Your task to perform on an android device: change the upload size in google photos Image 0: 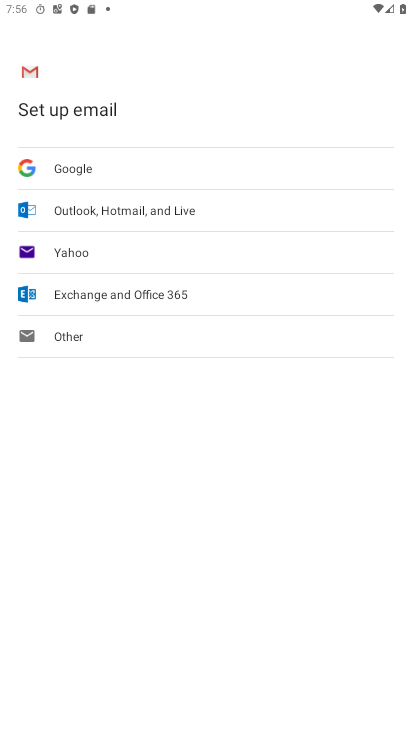
Step 0: press home button
Your task to perform on an android device: change the upload size in google photos Image 1: 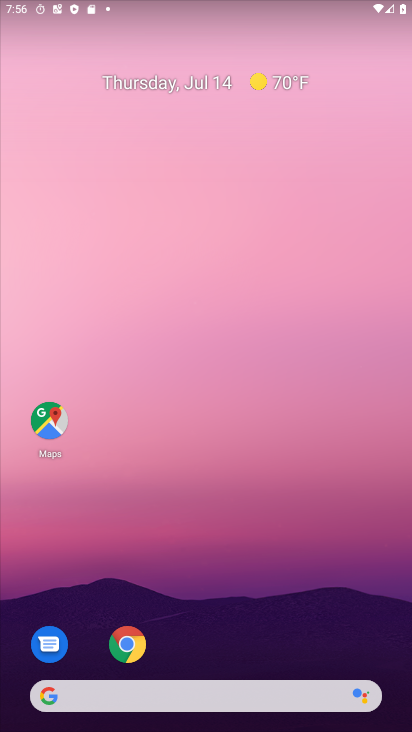
Step 1: drag from (226, 662) to (390, 56)
Your task to perform on an android device: change the upload size in google photos Image 2: 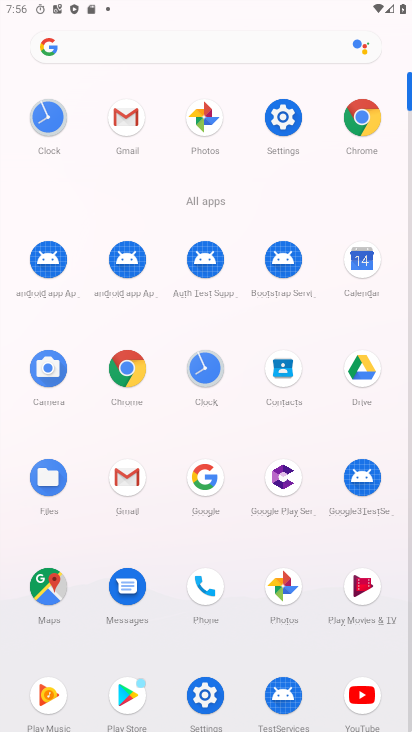
Step 2: click (293, 588)
Your task to perform on an android device: change the upload size in google photos Image 3: 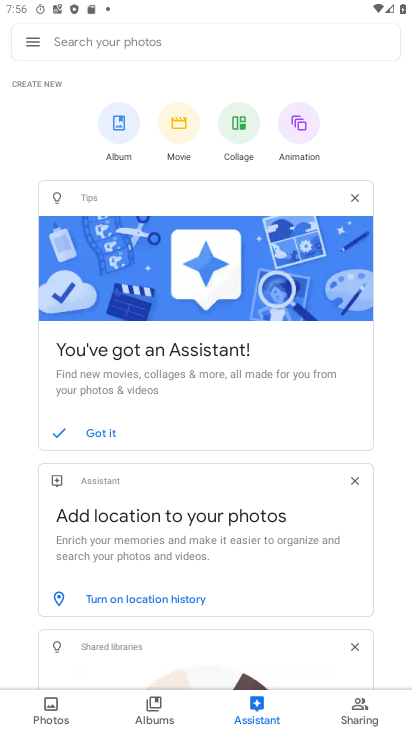
Step 3: click (33, 38)
Your task to perform on an android device: change the upload size in google photos Image 4: 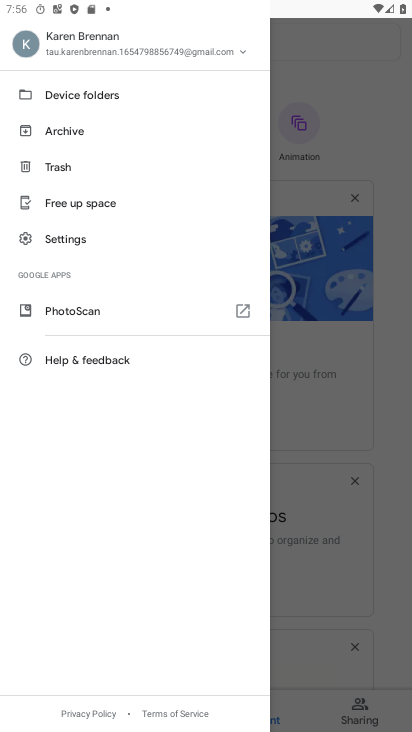
Step 4: click (77, 240)
Your task to perform on an android device: change the upload size in google photos Image 5: 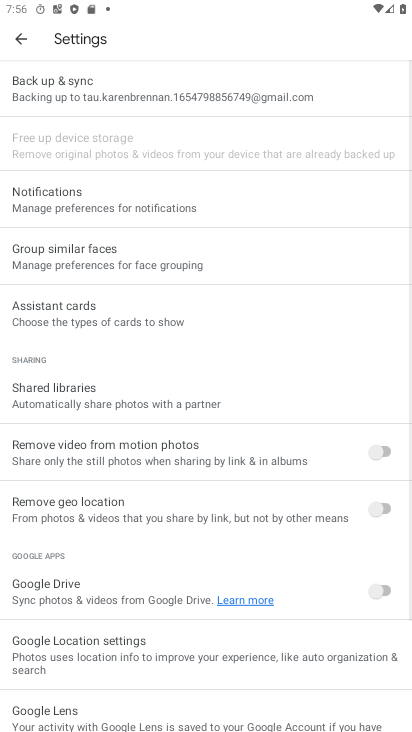
Step 5: click (233, 105)
Your task to perform on an android device: change the upload size in google photos Image 6: 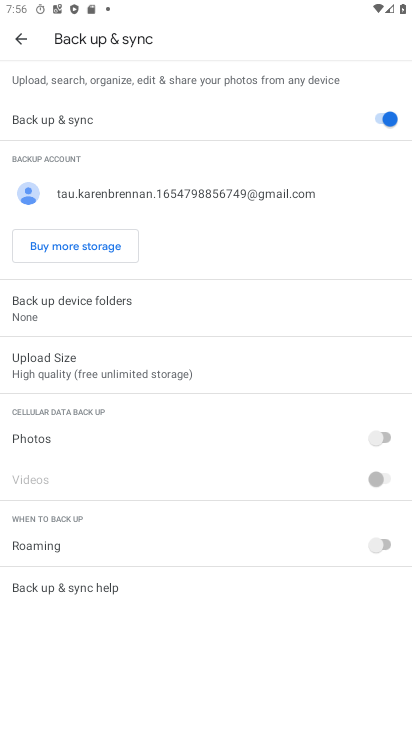
Step 6: click (179, 365)
Your task to perform on an android device: change the upload size in google photos Image 7: 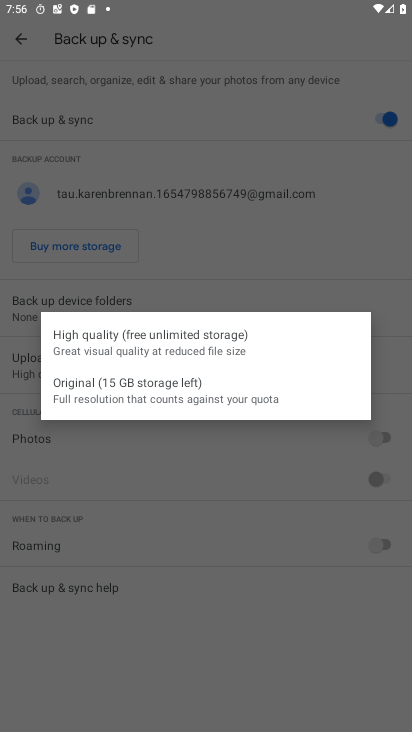
Step 7: click (98, 388)
Your task to perform on an android device: change the upload size in google photos Image 8: 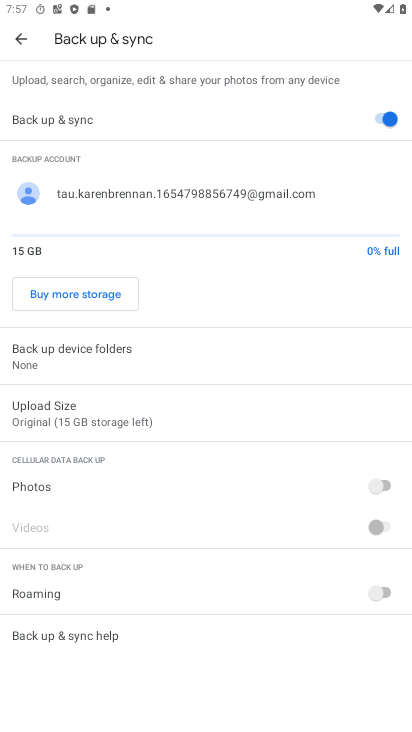
Step 8: task complete